Your task to perform on an android device: Go to eBay Image 0: 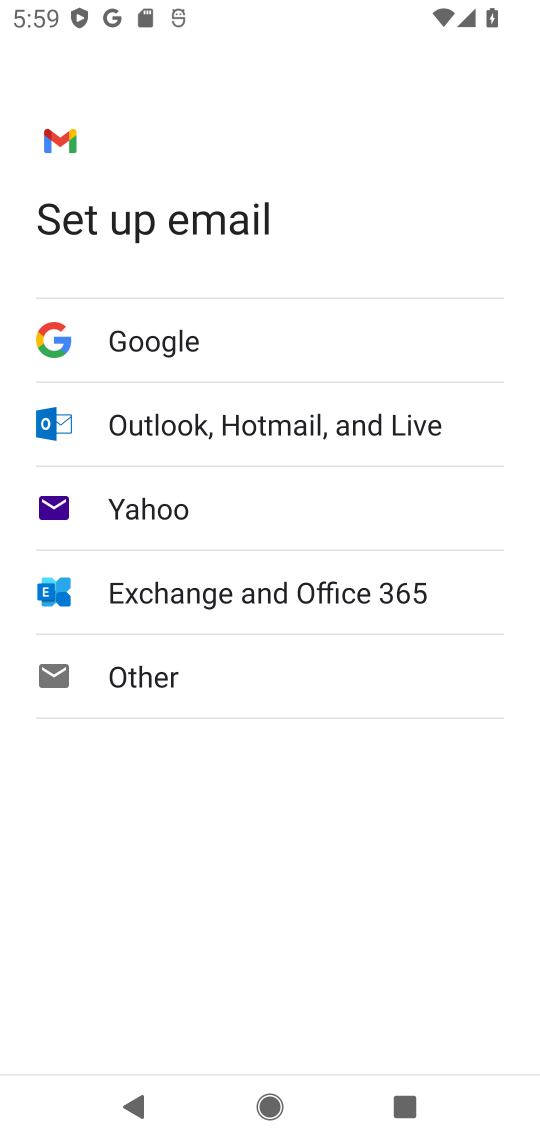
Step 0: press home button
Your task to perform on an android device: Go to eBay Image 1: 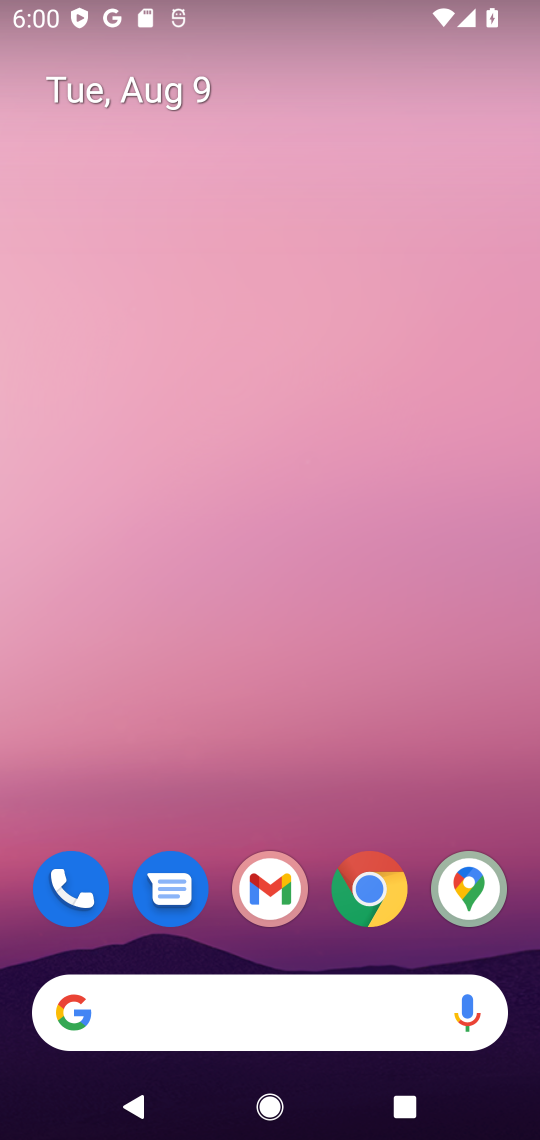
Step 1: click (374, 928)
Your task to perform on an android device: Go to eBay Image 2: 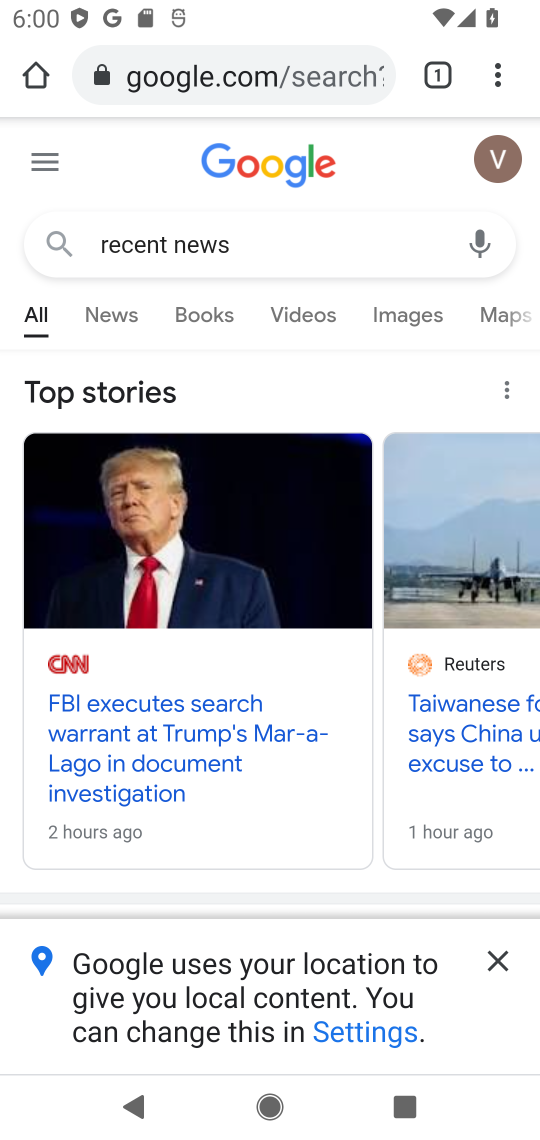
Step 2: click (253, 92)
Your task to perform on an android device: Go to eBay Image 3: 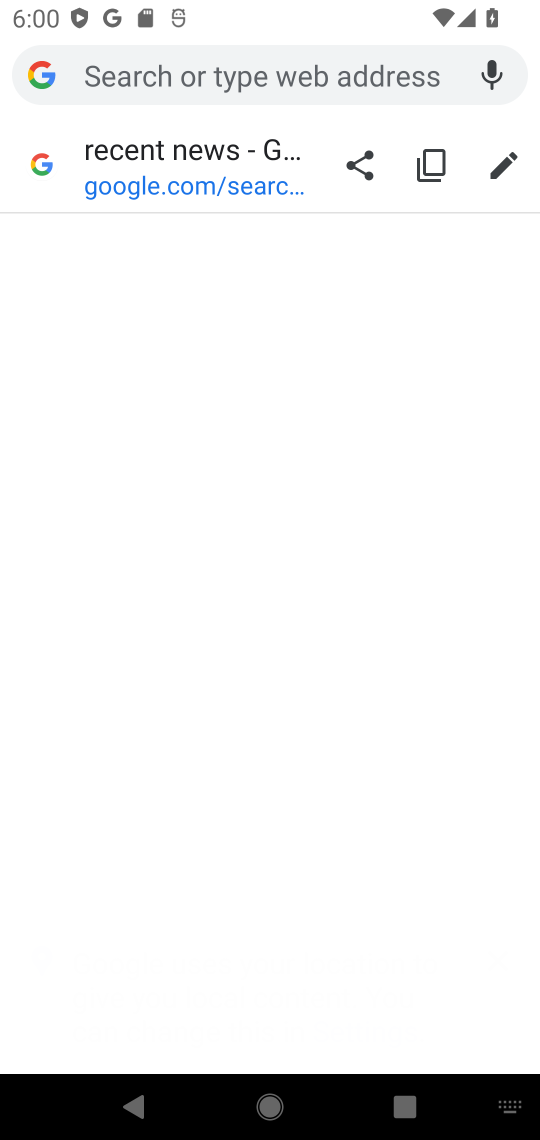
Step 3: type "ebay"
Your task to perform on an android device: Go to eBay Image 4: 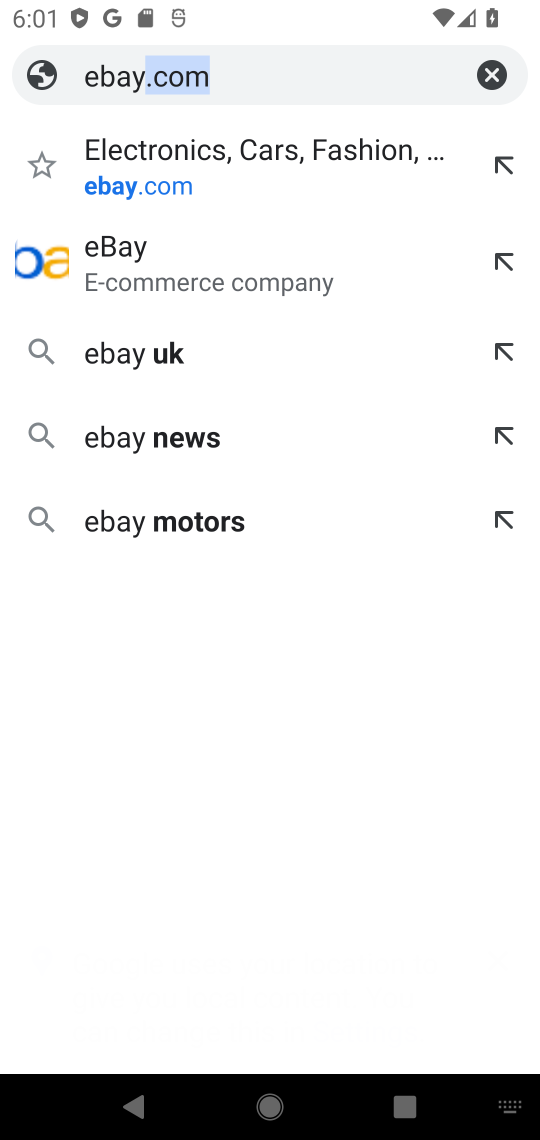
Step 4: click (194, 193)
Your task to perform on an android device: Go to eBay Image 5: 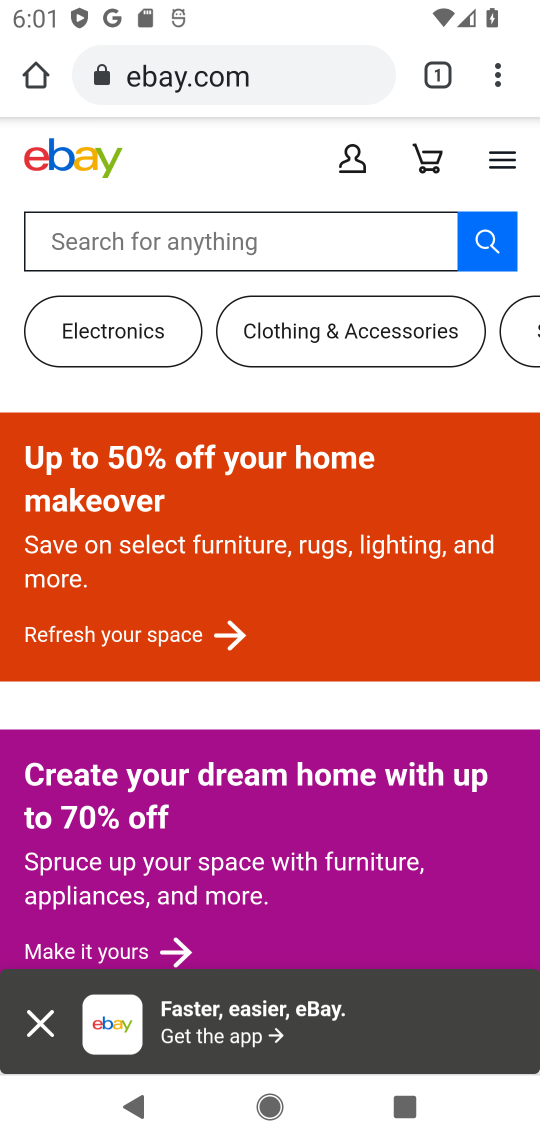
Step 5: task complete